Your task to perform on an android device: open chrome and create a bookmark for the current page Image 0: 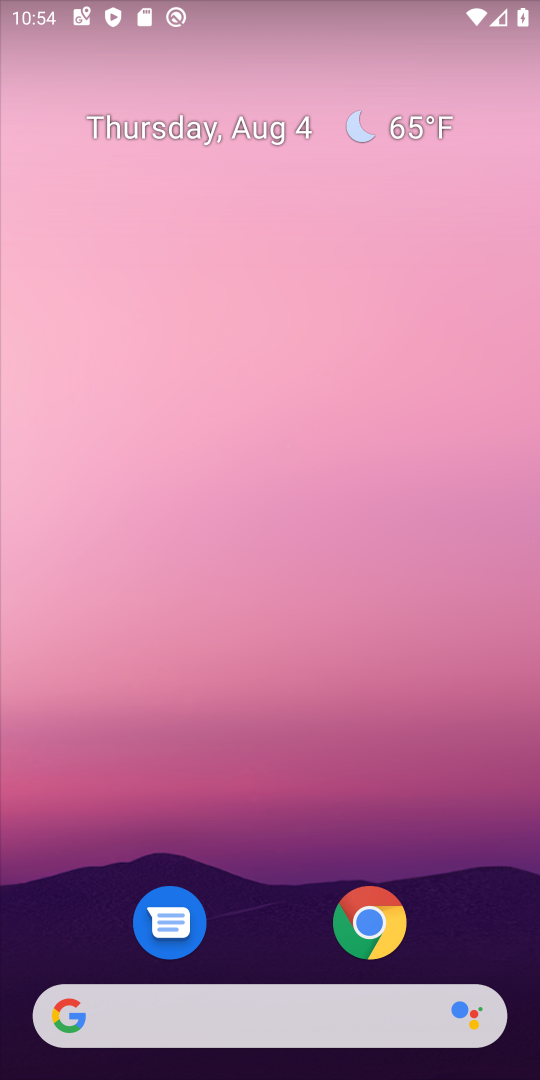
Step 0: drag from (278, 675) to (276, 284)
Your task to perform on an android device: open chrome and create a bookmark for the current page Image 1: 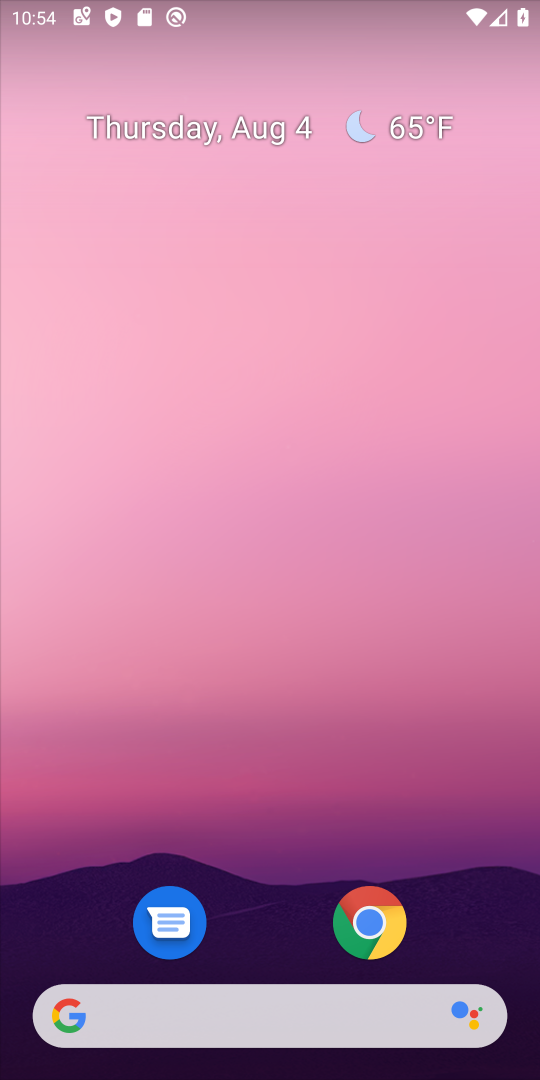
Step 1: drag from (279, 910) to (287, 360)
Your task to perform on an android device: open chrome and create a bookmark for the current page Image 2: 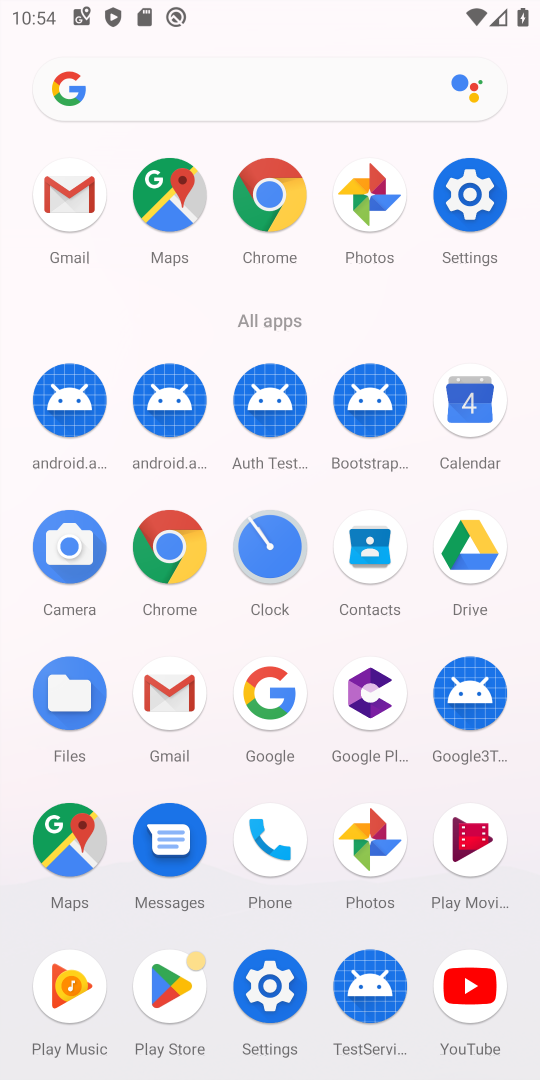
Step 2: click (279, 194)
Your task to perform on an android device: open chrome and create a bookmark for the current page Image 3: 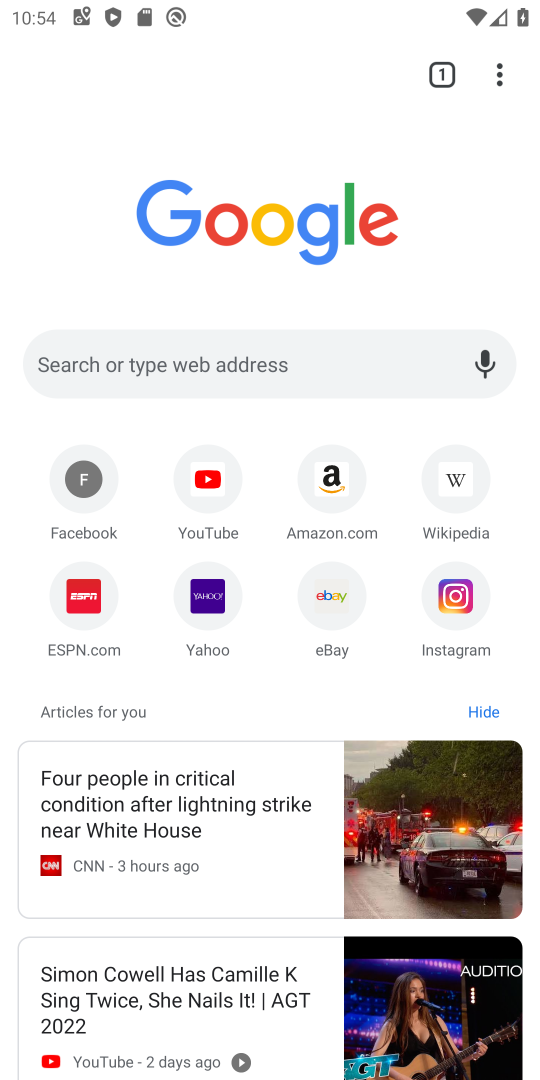
Step 3: click (498, 71)
Your task to perform on an android device: open chrome and create a bookmark for the current page Image 4: 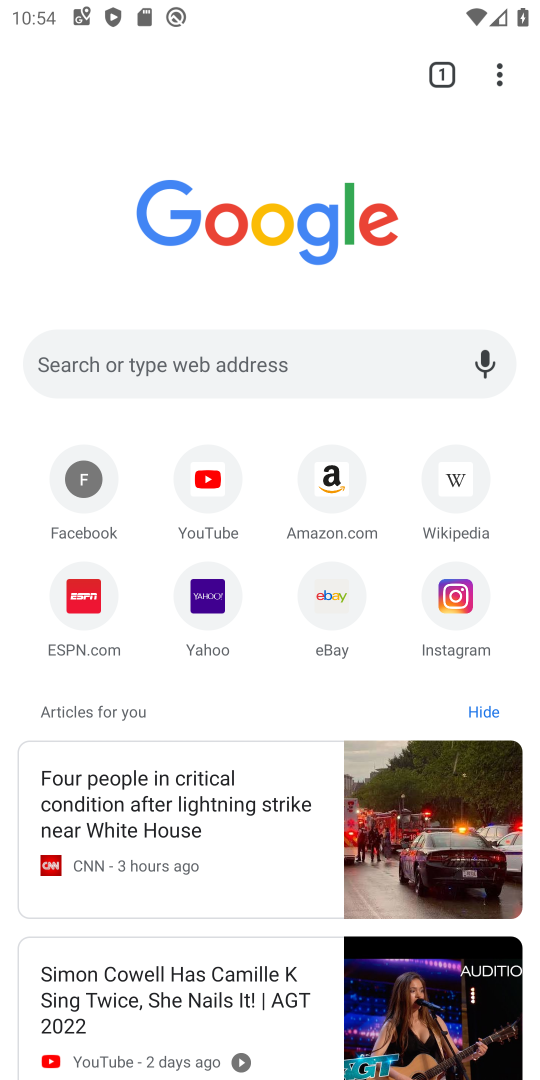
Step 4: click (498, 72)
Your task to perform on an android device: open chrome and create a bookmark for the current page Image 5: 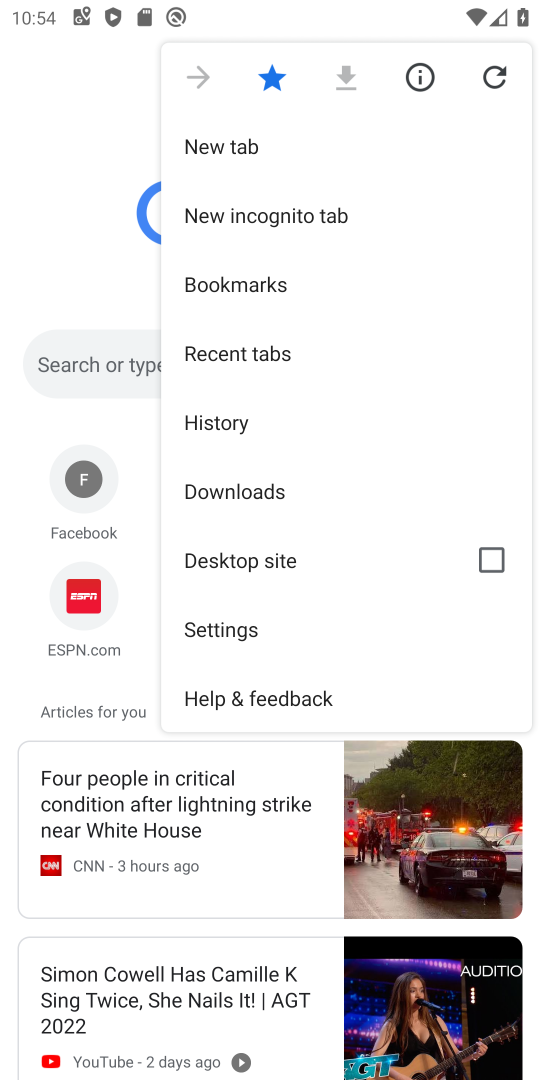
Step 5: task complete